Your task to perform on an android device: Open Google Image 0: 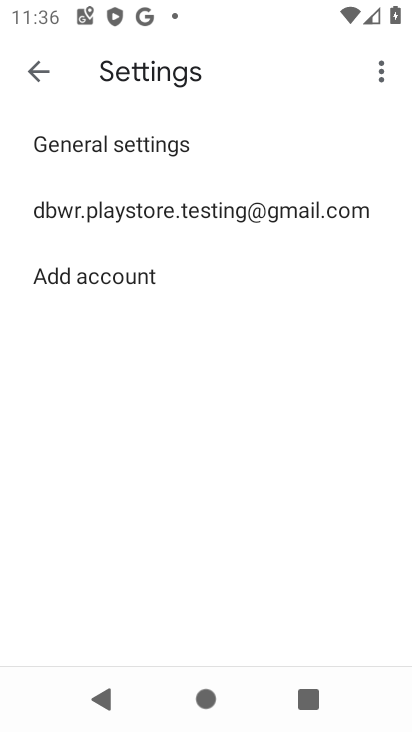
Step 0: press home button
Your task to perform on an android device: Open Google Image 1: 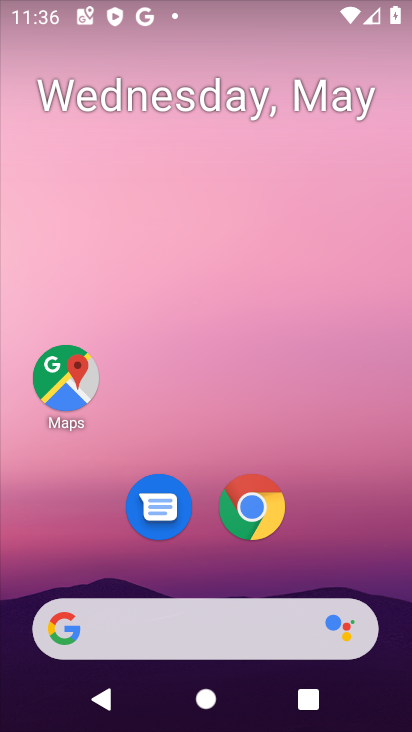
Step 1: drag from (355, 518) to (345, 119)
Your task to perform on an android device: Open Google Image 2: 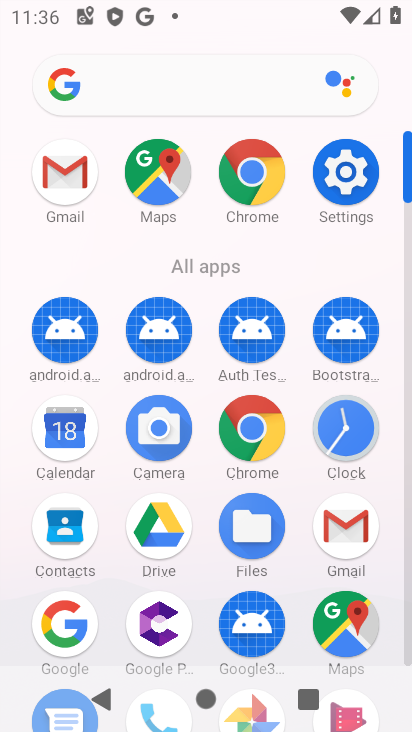
Step 2: click (44, 632)
Your task to perform on an android device: Open Google Image 3: 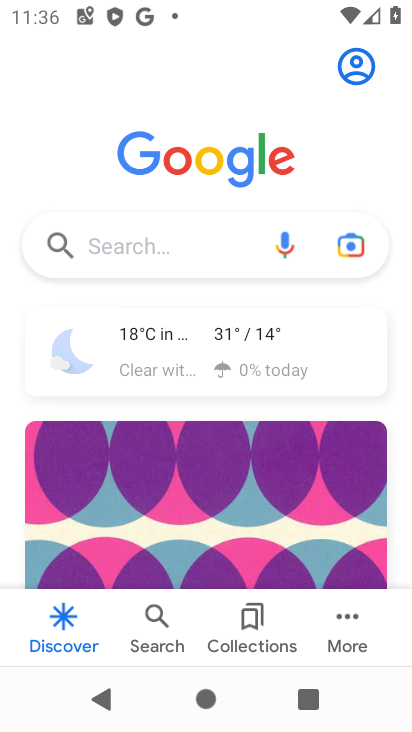
Step 3: task complete